Your task to perform on an android device: What is the recent news? Image 0: 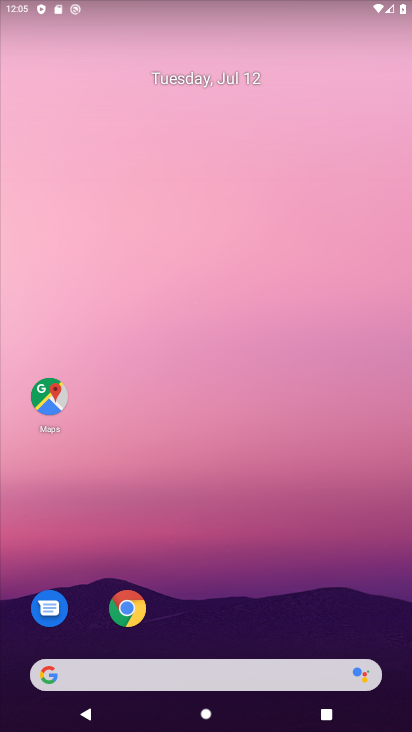
Step 0: drag from (148, 639) to (187, 428)
Your task to perform on an android device: What is the recent news? Image 1: 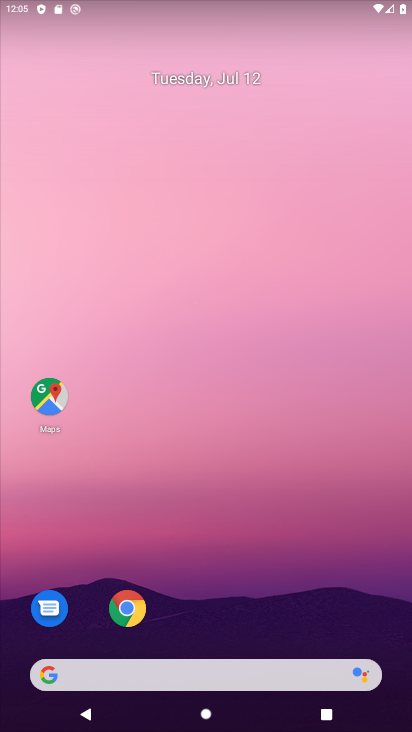
Step 1: drag from (263, 556) to (280, 406)
Your task to perform on an android device: What is the recent news? Image 2: 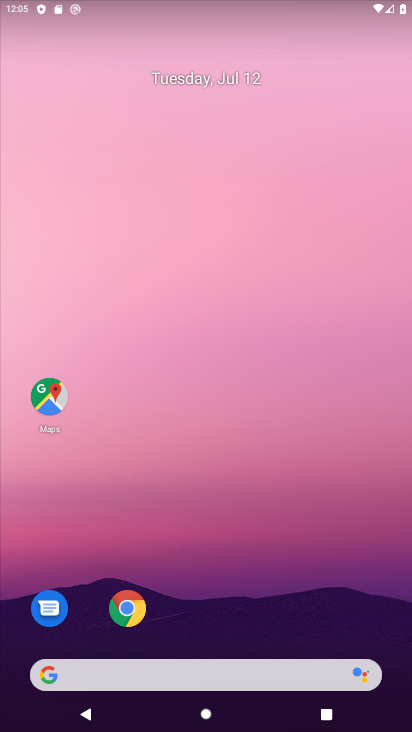
Step 2: drag from (243, 624) to (260, 117)
Your task to perform on an android device: What is the recent news? Image 3: 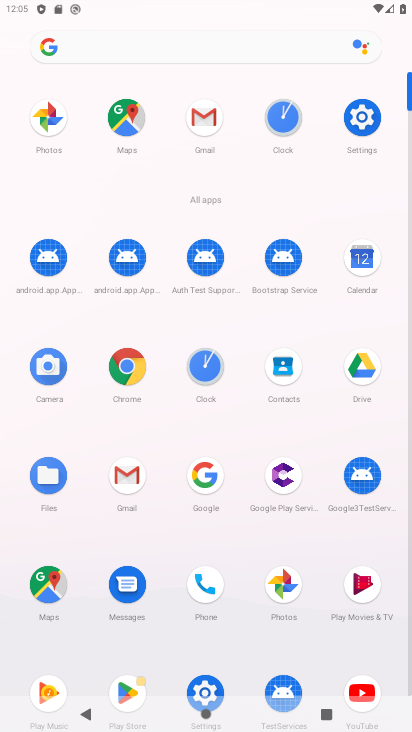
Step 3: click (203, 481)
Your task to perform on an android device: What is the recent news? Image 4: 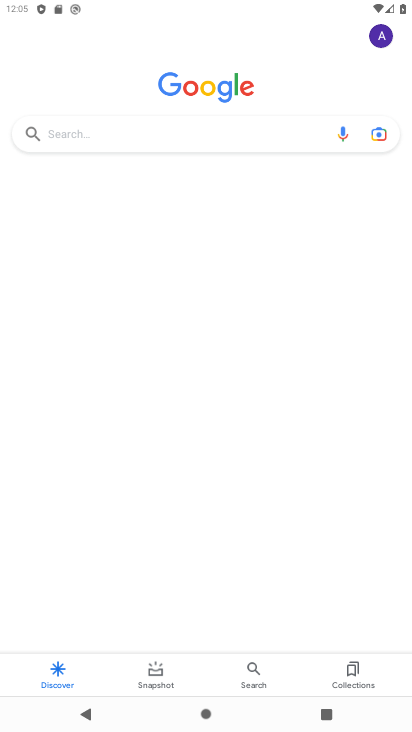
Step 4: click (106, 139)
Your task to perform on an android device: What is the recent news? Image 5: 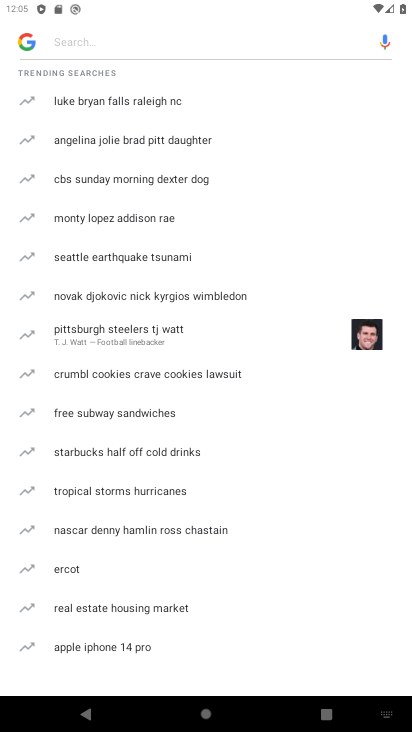
Step 5: type "recent news"
Your task to perform on an android device: What is the recent news? Image 6: 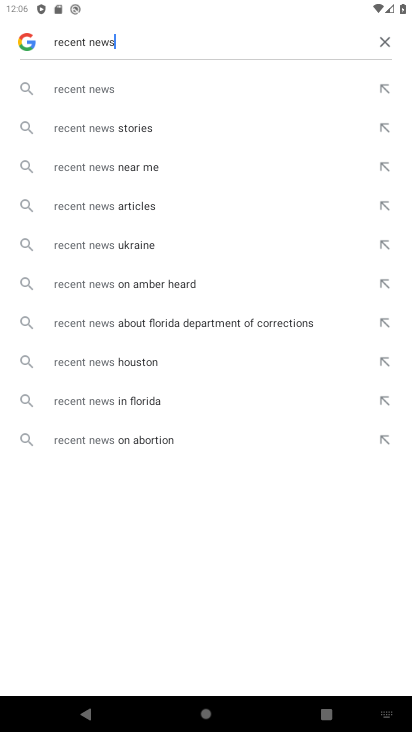
Step 6: click (102, 87)
Your task to perform on an android device: What is the recent news? Image 7: 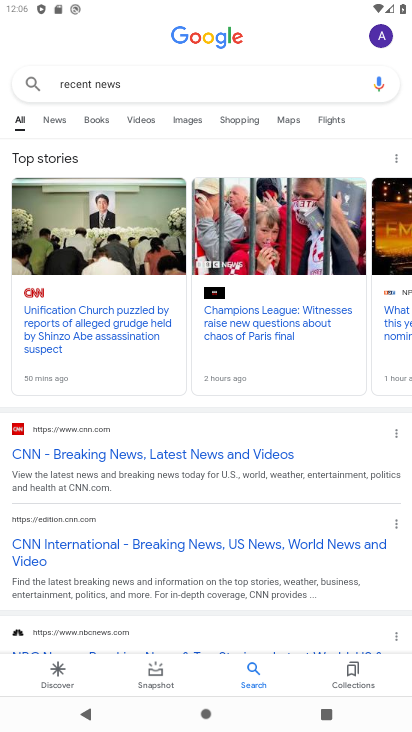
Step 7: click (177, 460)
Your task to perform on an android device: What is the recent news? Image 8: 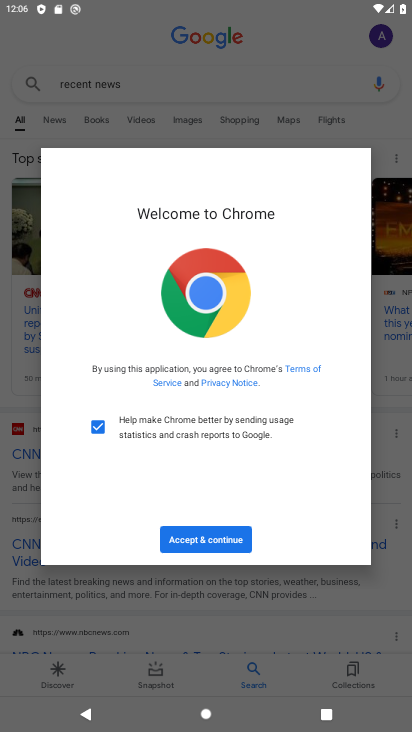
Step 8: click (390, 600)
Your task to perform on an android device: What is the recent news? Image 9: 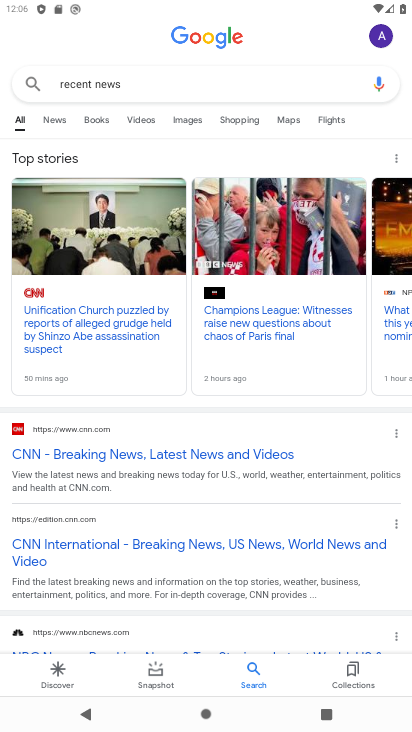
Step 9: task complete